Your task to perform on an android device: see creations saved in the google photos Image 0: 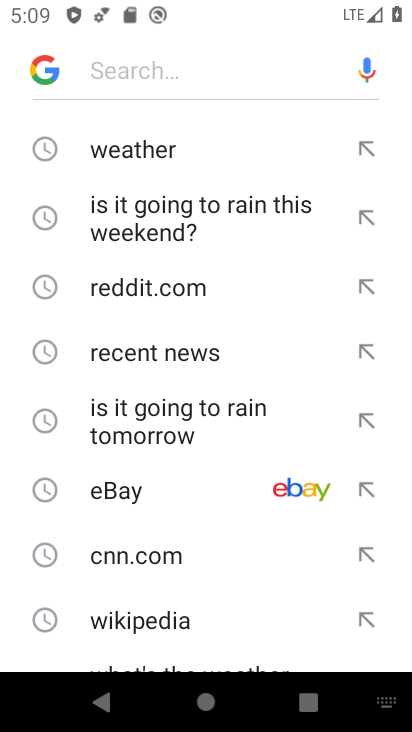
Step 0: press home button
Your task to perform on an android device: see creations saved in the google photos Image 1: 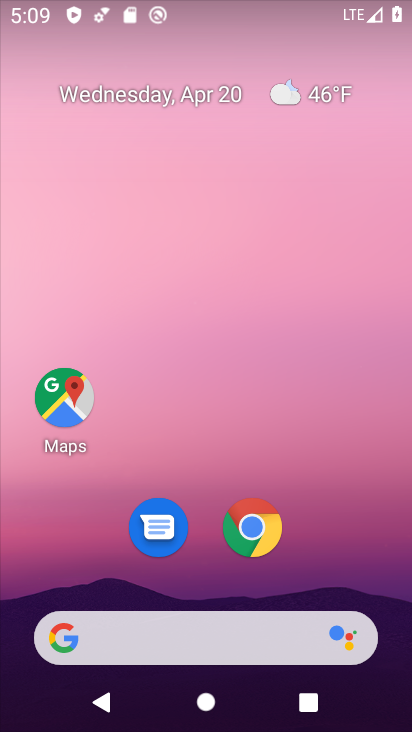
Step 1: drag from (223, 444) to (179, 18)
Your task to perform on an android device: see creations saved in the google photos Image 2: 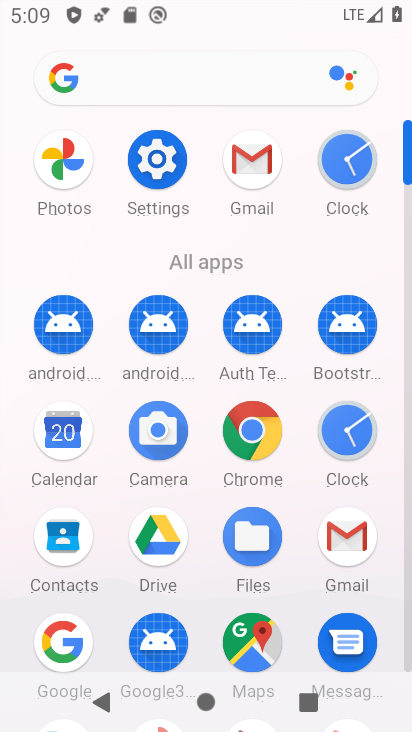
Step 2: click (55, 163)
Your task to perform on an android device: see creations saved in the google photos Image 3: 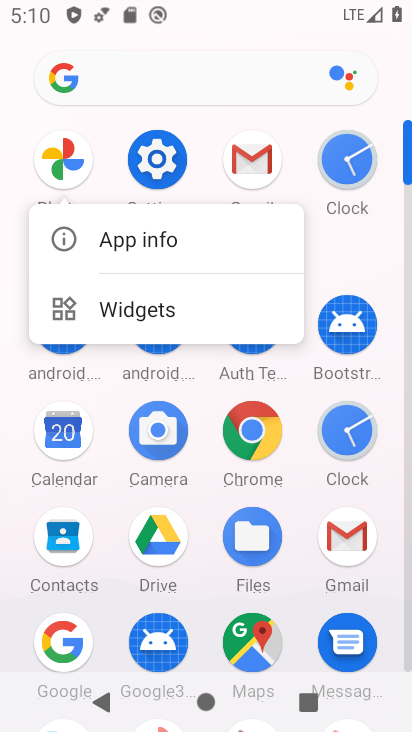
Step 3: click (66, 155)
Your task to perform on an android device: see creations saved in the google photos Image 4: 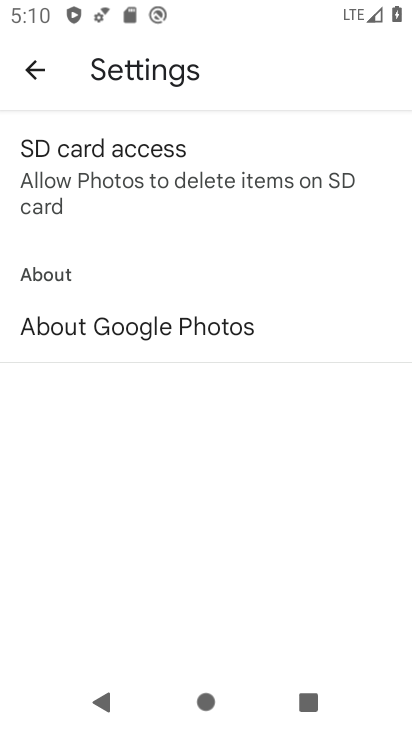
Step 4: click (33, 78)
Your task to perform on an android device: see creations saved in the google photos Image 5: 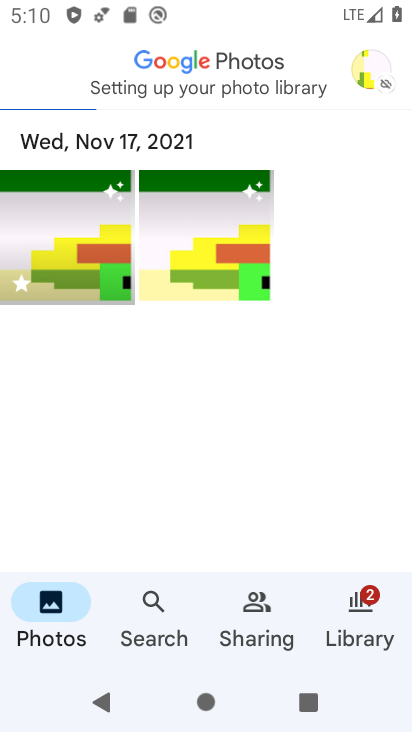
Step 5: click (161, 605)
Your task to perform on an android device: see creations saved in the google photos Image 6: 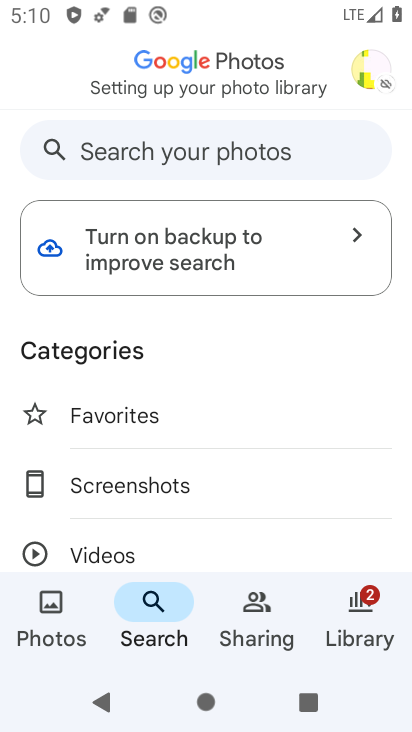
Step 6: click (118, 148)
Your task to perform on an android device: see creations saved in the google photos Image 7: 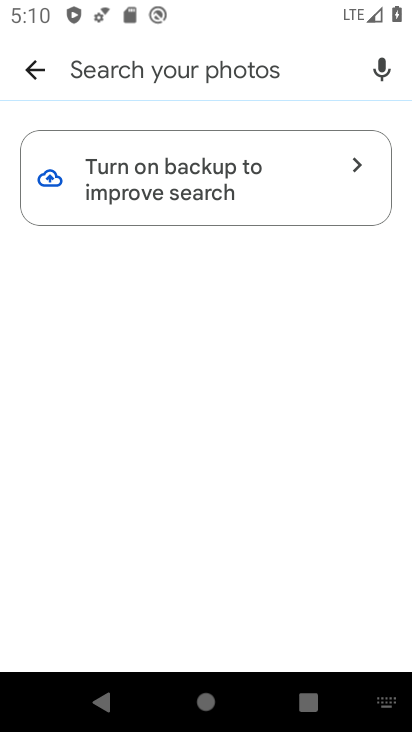
Step 7: type "creations"
Your task to perform on an android device: see creations saved in the google photos Image 8: 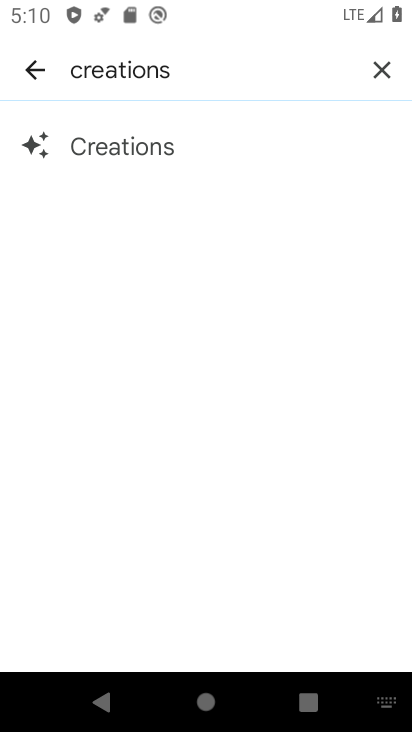
Step 8: click (113, 137)
Your task to perform on an android device: see creations saved in the google photos Image 9: 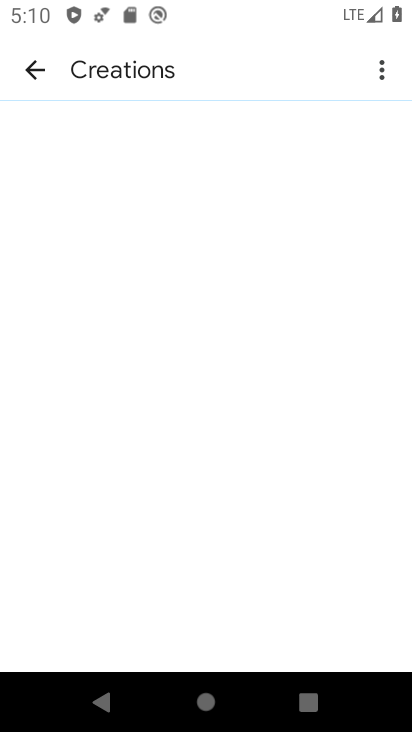
Step 9: click (124, 146)
Your task to perform on an android device: see creations saved in the google photos Image 10: 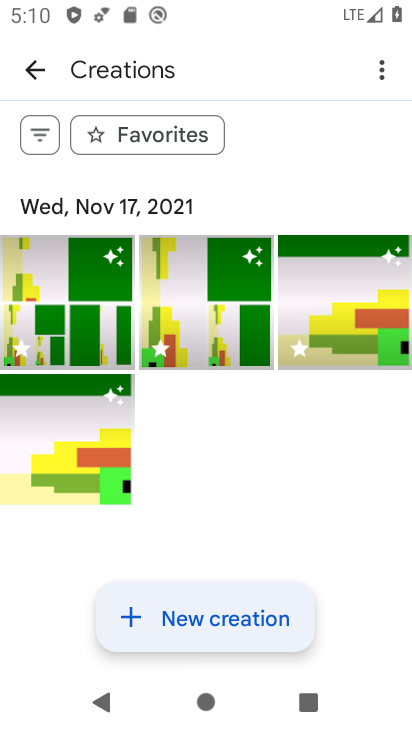
Step 10: task complete